Your task to perform on an android device: Open Google Maps and go to "Timeline" Image 0: 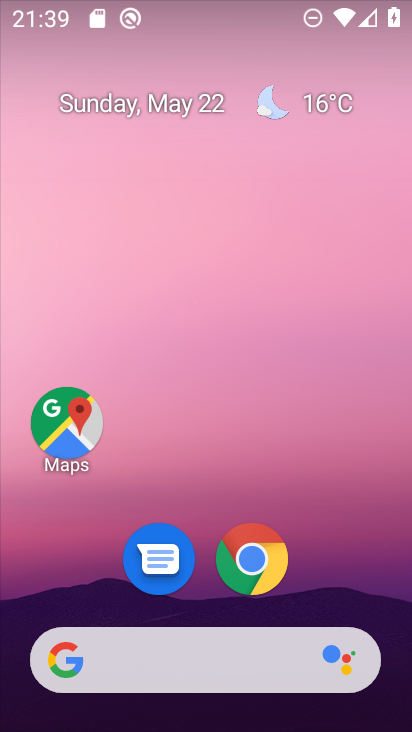
Step 0: press home button
Your task to perform on an android device: Open Google Maps and go to "Timeline" Image 1: 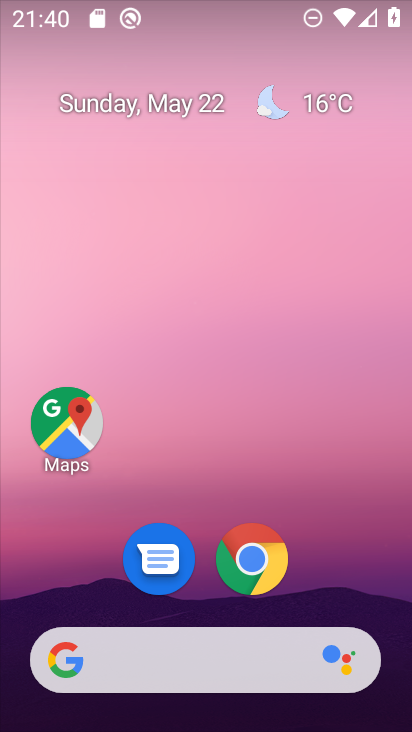
Step 1: drag from (211, 678) to (177, 223)
Your task to perform on an android device: Open Google Maps and go to "Timeline" Image 2: 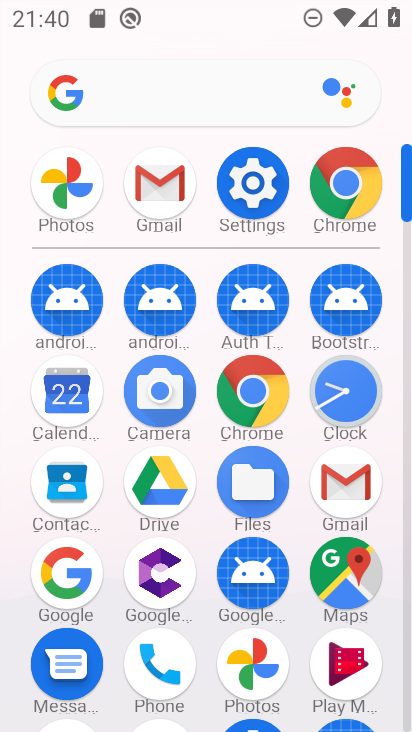
Step 2: click (340, 584)
Your task to perform on an android device: Open Google Maps and go to "Timeline" Image 3: 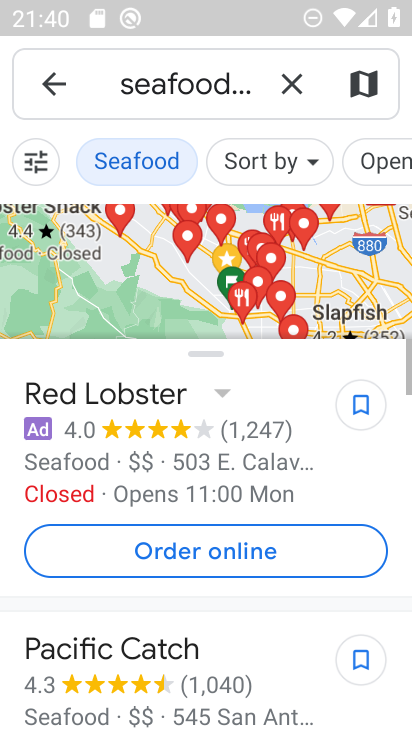
Step 3: click (53, 94)
Your task to perform on an android device: Open Google Maps and go to "Timeline" Image 4: 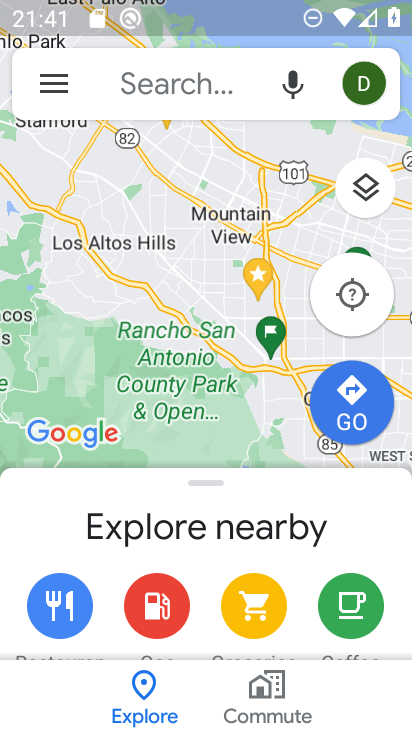
Step 4: click (41, 80)
Your task to perform on an android device: Open Google Maps and go to "Timeline" Image 5: 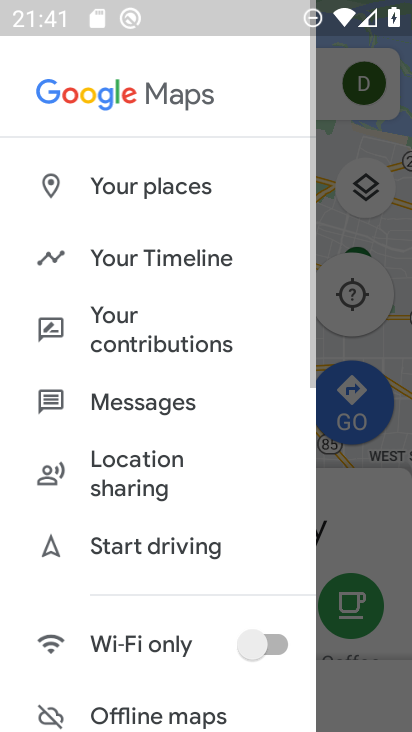
Step 5: click (134, 246)
Your task to perform on an android device: Open Google Maps and go to "Timeline" Image 6: 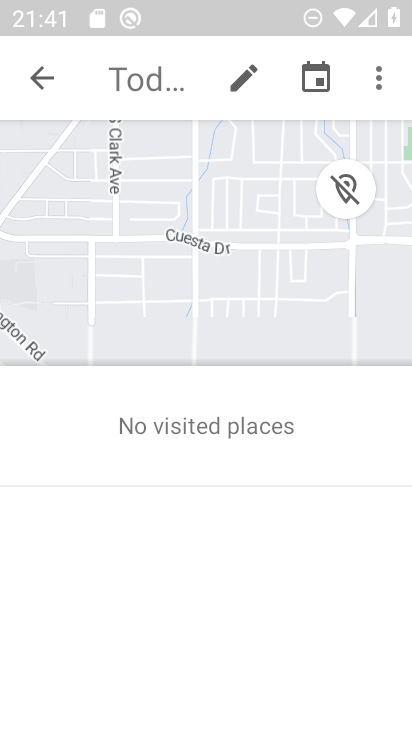
Step 6: task complete